Your task to perform on an android device: move an email to a new category in the gmail app Image 0: 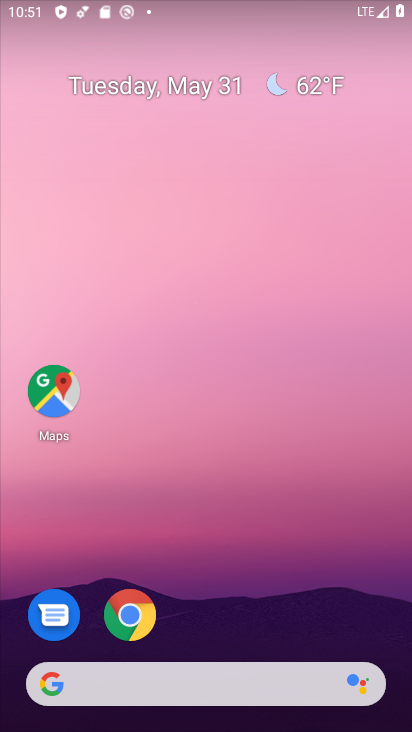
Step 0: drag from (240, 656) to (210, 31)
Your task to perform on an android device: move an email to a new category in the gmail app Image 1: 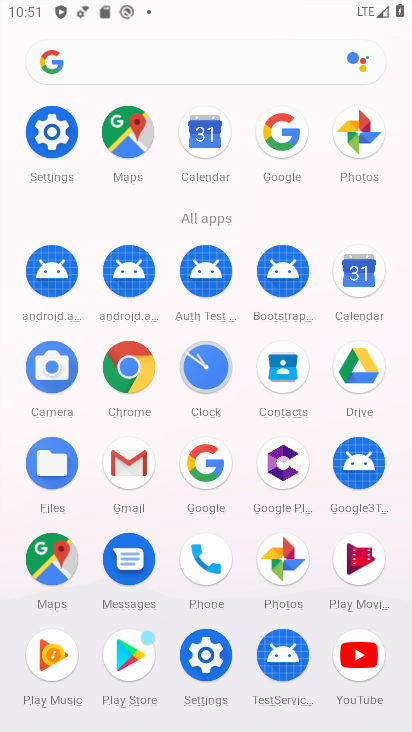
Step 1: click (123, 473)
Your task to perform on an android device: move an email to a new category in the gmail app Image 2: 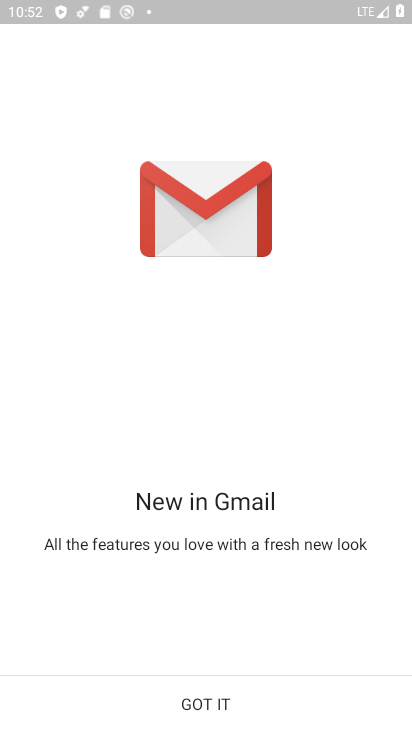
Step 2: click (217, 717)
Your task to perform on an android device: move an email to a new category in the gmail app Image 3: 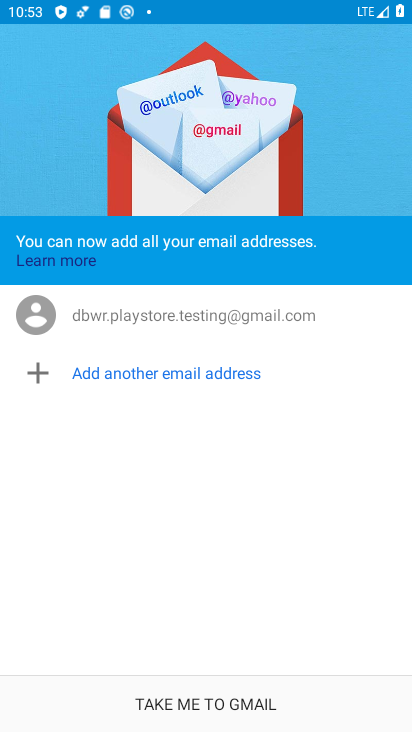
Step 3: click (119, 714)
Your task to perform on an android device: move an email to a new category in the gmail app Image 4: 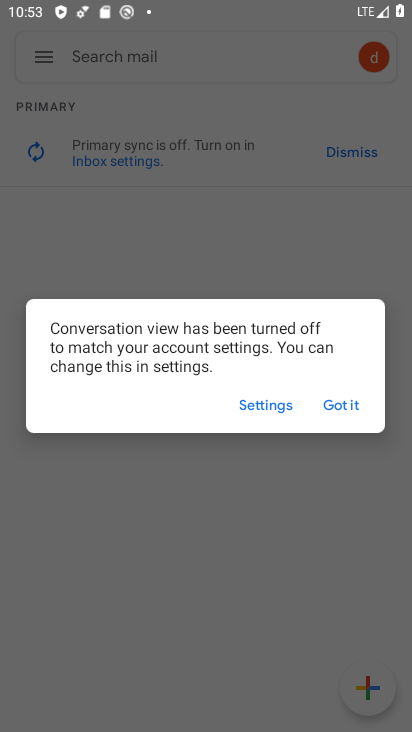
Step 4: click (337, 412)
Your task to perform on an android device: move an email to a new category in the gmail app Image 5: 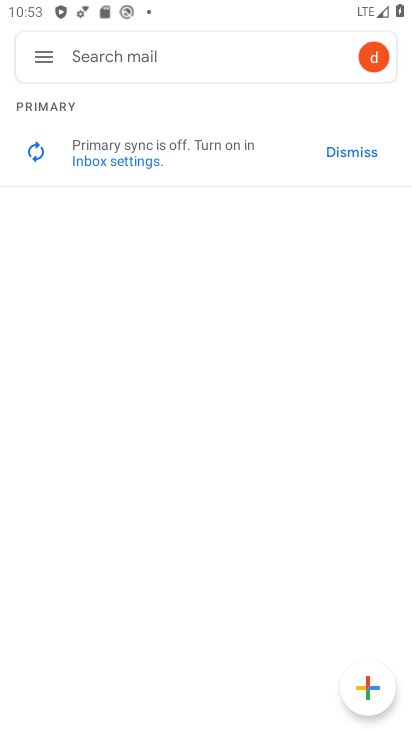
Step 5: click (41, 69)
Your task to perform on an android device: move an email to a new category in the gmail app Image 6: 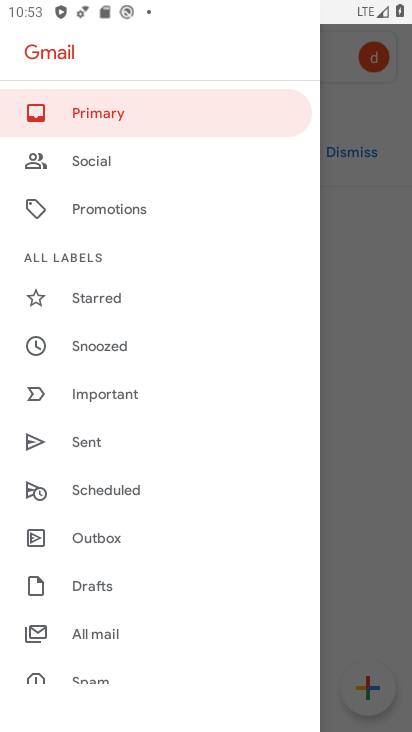
Step 6: click (115, 640)
Your task to perform on an android device: move an email to a new category in the gmail app Image 7: 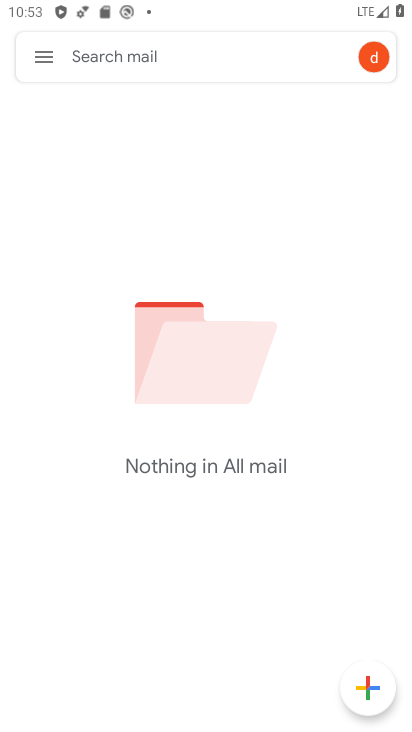
Step 7: task complete